Your task to perform on an android device: Go to calendar. Show me events next week Image 0: 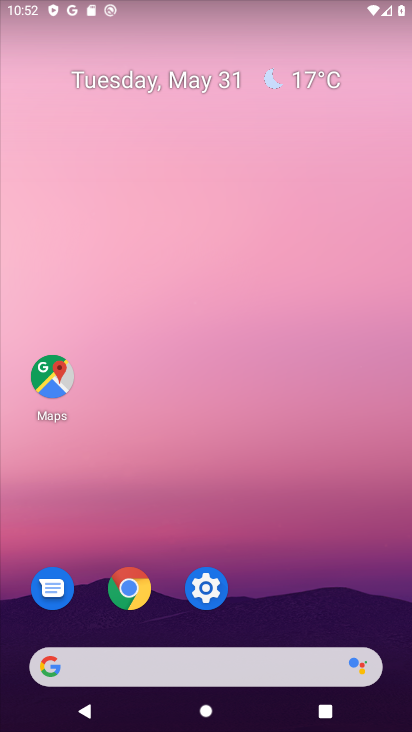
Step 0: press home button
Your task to perform on an android device: Go to calendar. Show me events next week Image 1: 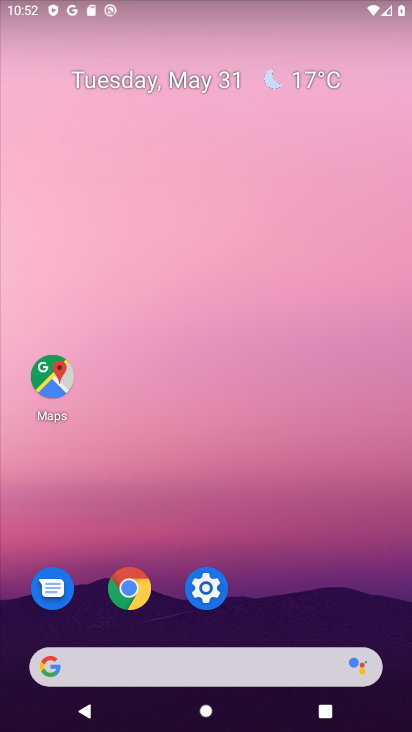
Step 1: click (204, 586)
Your task to perform on an android device: Go to calendar. Show me events next week Image 2: 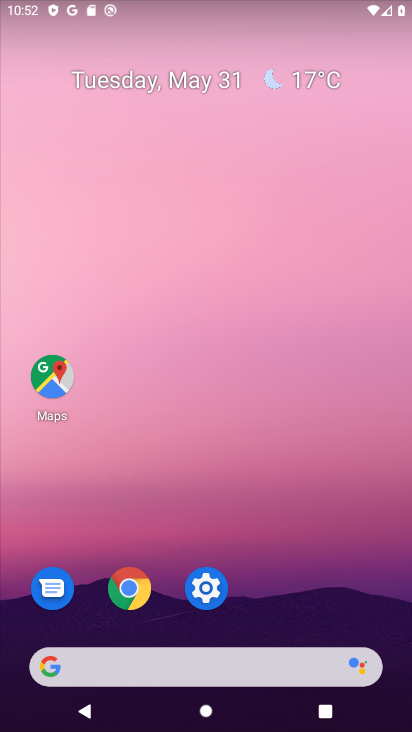
Step 2: drag from (210, 621) to (277, 242)
Your task to perform on an android device: Go to calendar. Show me events next week Image 3: 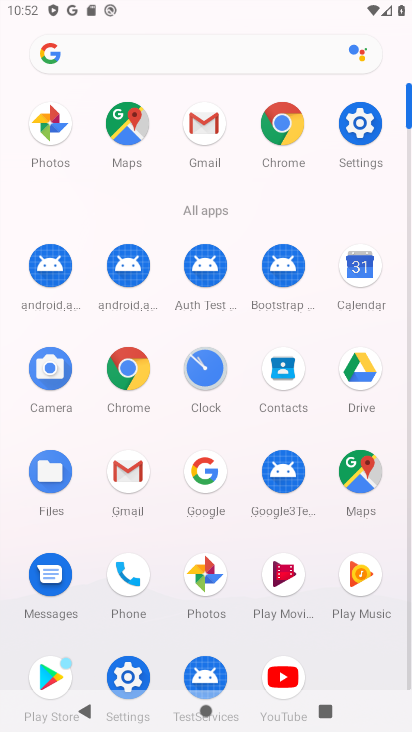
Step 3: click (275, 365)
Your task to perform on an android device: Go to calendar. Show me events next week Image 4: 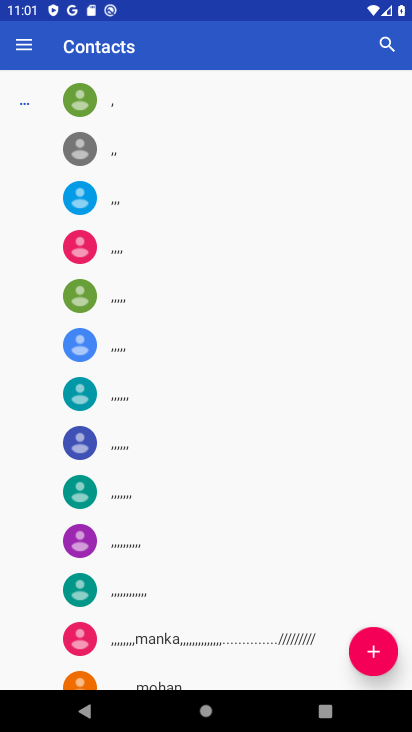
Step 4: press home button
Your task to perform on an android device: Go to calendar. Show me events next week Image 5: 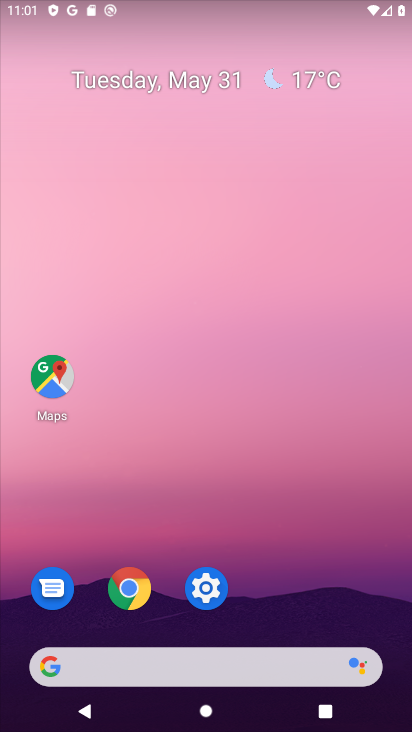
Step 5: drag from (198, 692) to (246, 146)
Your task to perform on an android device: Go to calendar. Show me events next week Image 6: 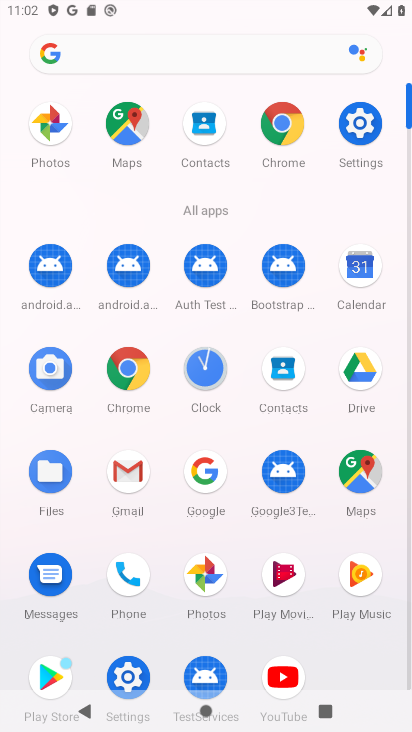
Step 6: click (360, 271)
Your task to perform on an android device: Go to calendar. Show me events next week Image 7: 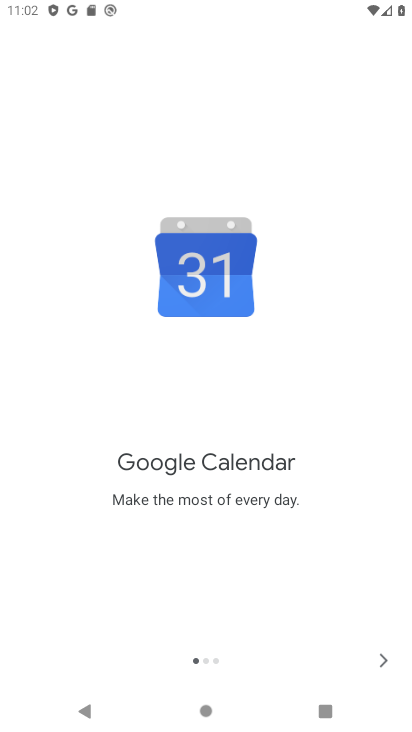
Step 7: click (387, 664)
Your task to perform on an android device: Go to calendar. Show me events next week Image 8: 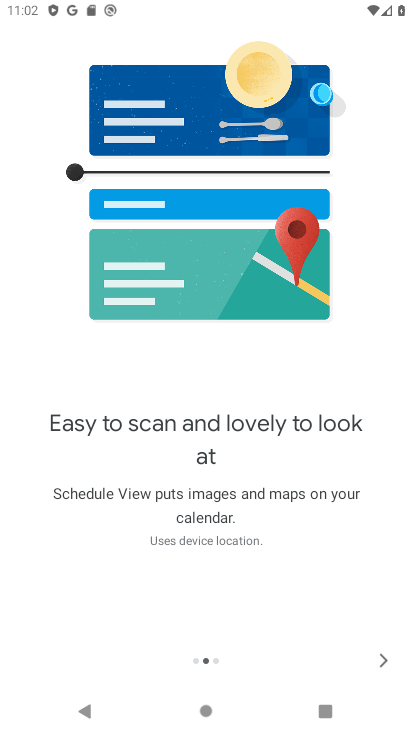
Step 8: click (385, 682)
Your task to perform on an android device: Go to calendar. Show me events next week Image 9: 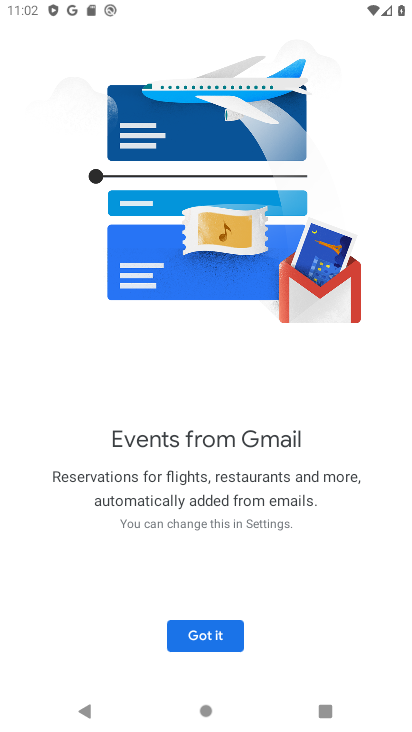
Step 9: click (216, 635)
Your task to perform on an android device: Go to calendar. Show me events next week Image 10: 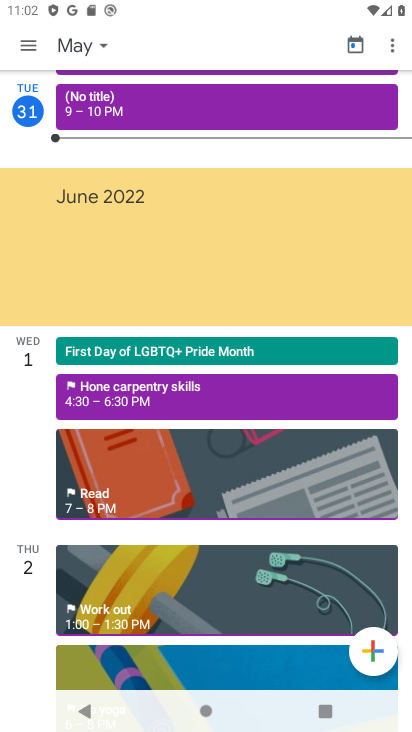
Step 10: task complete